Your task to perform on an android device: Open Google Chrome and click the shortcut for Amazon.com Image 0: 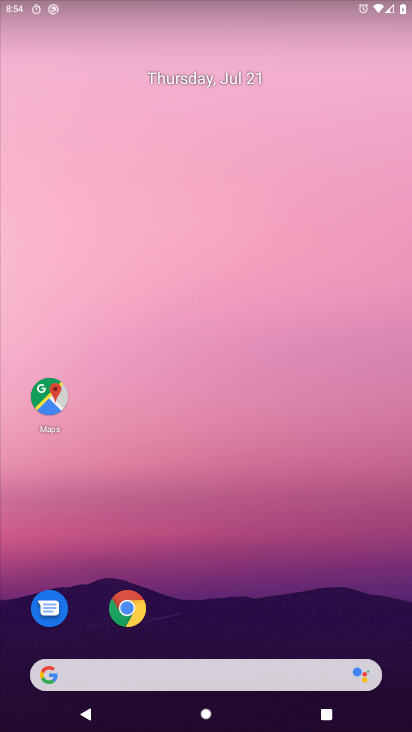
Step 0: click (130, 671)
Your task to perform on an android device: Open Google Chrome and click the shortcut for Amazon.com Image 1: 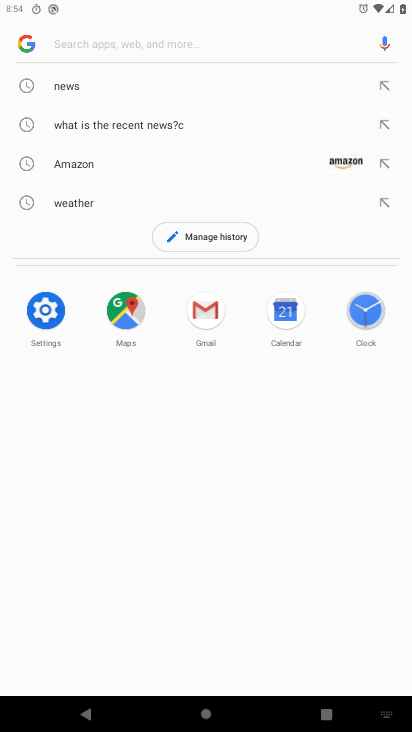
Step 1: click (75, 167)
Your task to perform on an android device: Open Google Chrome and click the shortcut for Amazon.com Image 2: 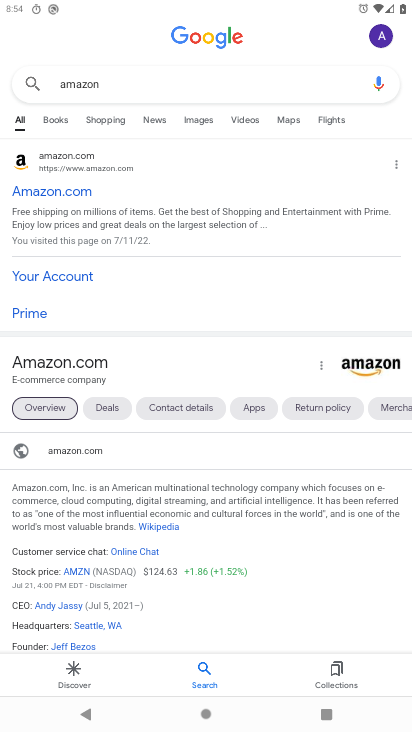
Step 2: task complete